Your task to perform on an android device: Go to ESPN.com Image 0: 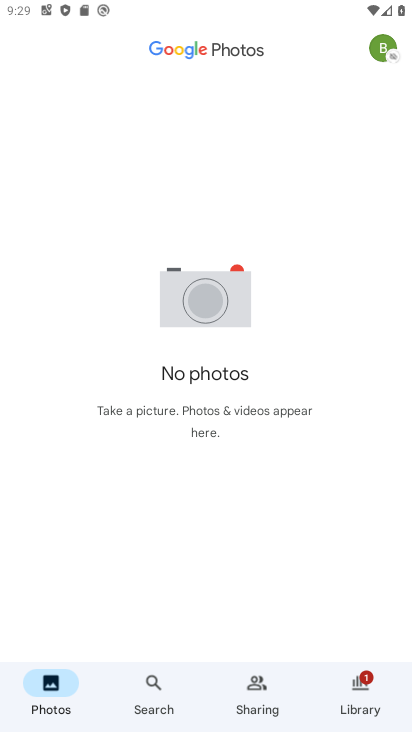
Step 0: press home button
Your task to perform on an android device: Go to ESPN.com Image 1: 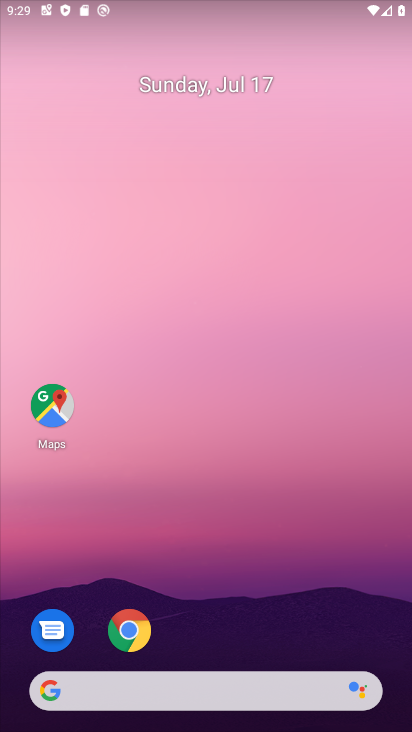
Step 1: drag from (217, 655) to (167, 101)
Your task to perform on an android device: Go to ESPN.com Image 2: 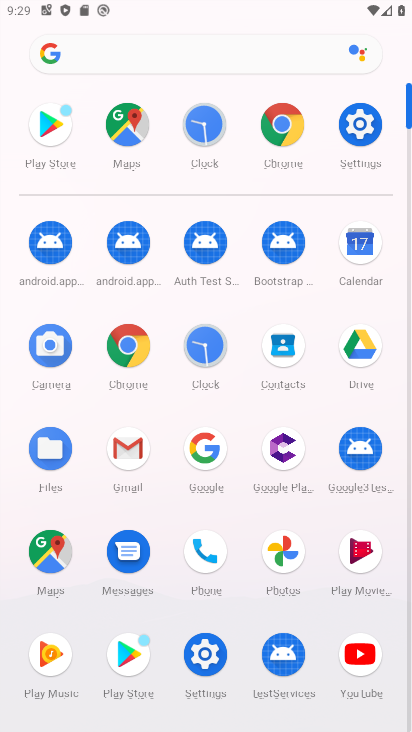
Step 2: click (122, 338)
Your task to perform on an android device: Go to ESPN.com Image 3: 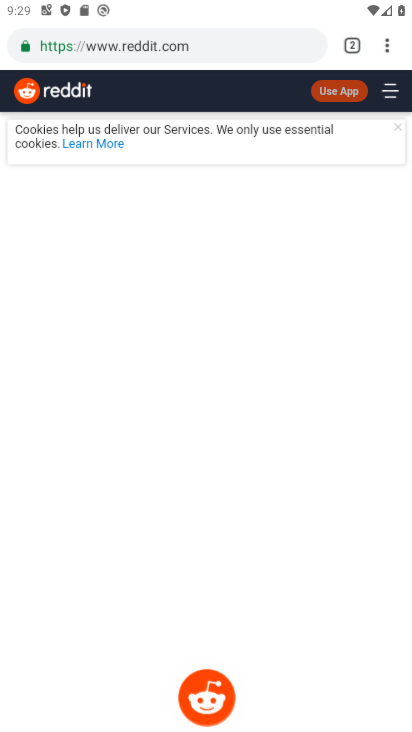
Step 3: click (165, 50)
Your task to perform on an android device: Go to ESPN.com Image 4: 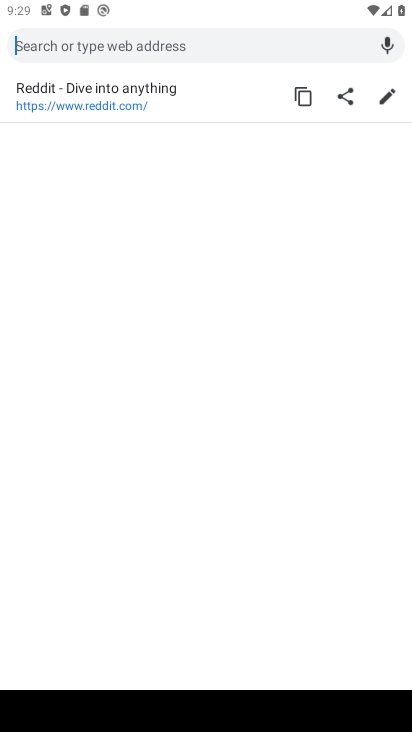
Step 4: type "espn.com"
Your task to perform on an android device: Go to ESPN.com Image 5: 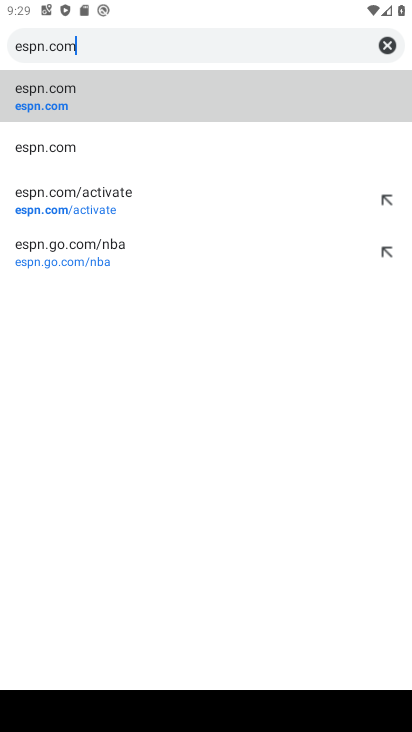
Step 5: click (212, 78)
Your task to perform on an android device: Go to ESPN.com Image 6: 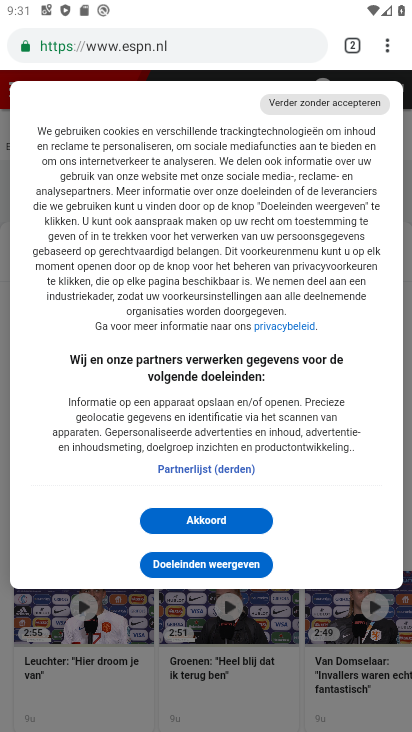
Step 6: task complete